Your task to perform on an android device: Go to location settings Image 0: 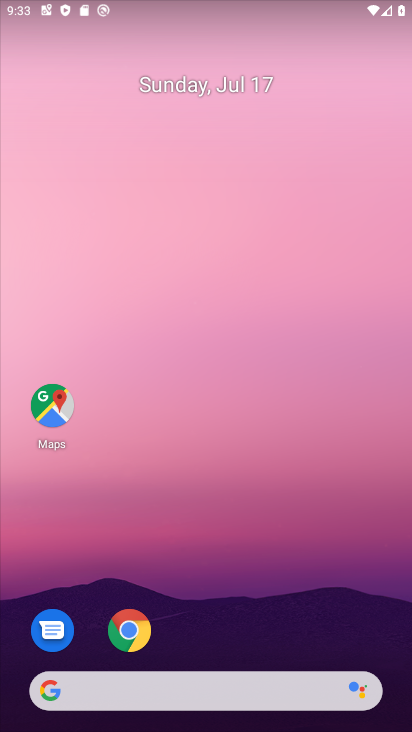
Step 0: drag from (286, 666) to (314, 47)
Your task to perform on an android device: Go to location settings Image 1: 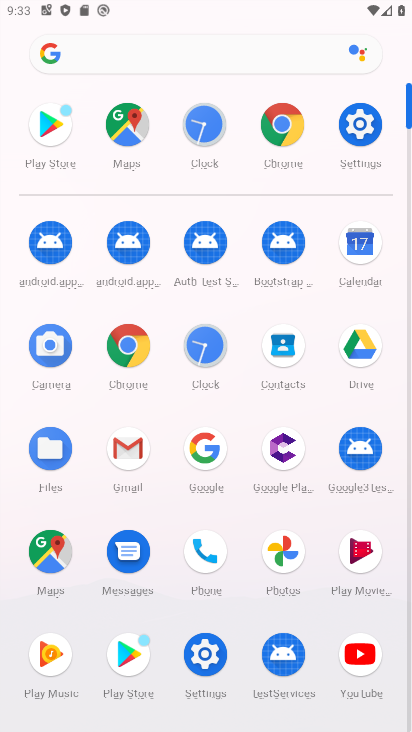
Step 1: click (355, 130)
Your task to perform on an android device: Go to location settings Image 2: 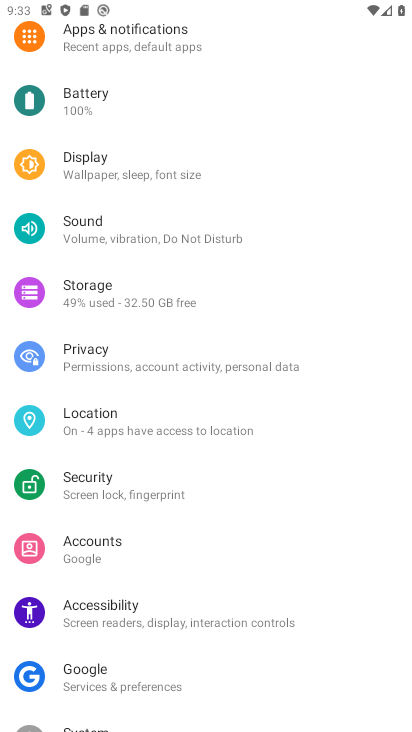
Step 2: click (172, 426)
Your task to perform on an android device: Go to location settings Image 3: 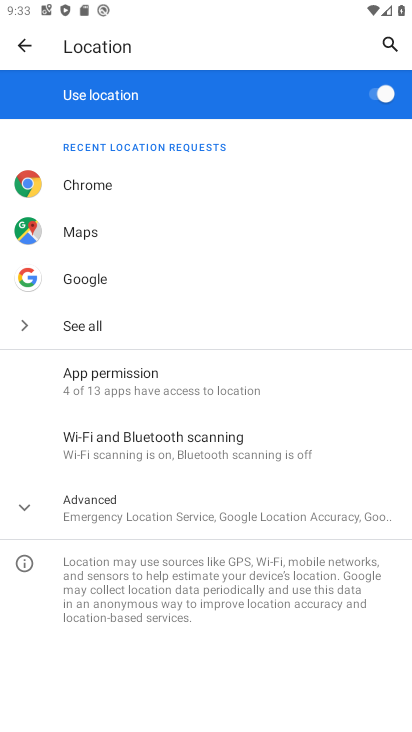
Step 3: task complete